Your task to perform on an android device: allow notifications from all sites in the chrome app Image 0: 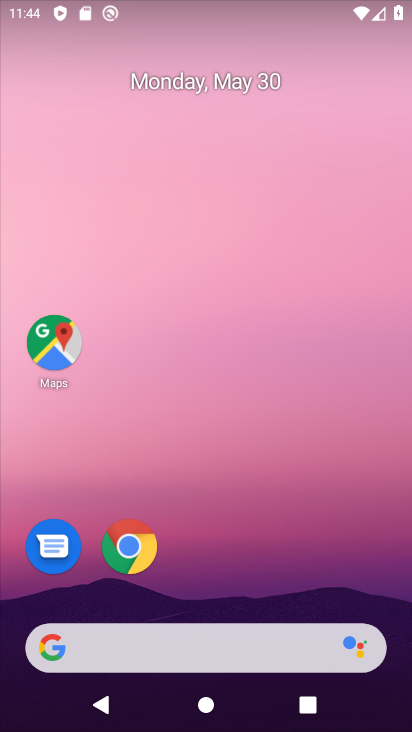
Step 0: click (232, 73)
Your task to perform on an android device: allow notifications from all sites in the chrome app Image 1: 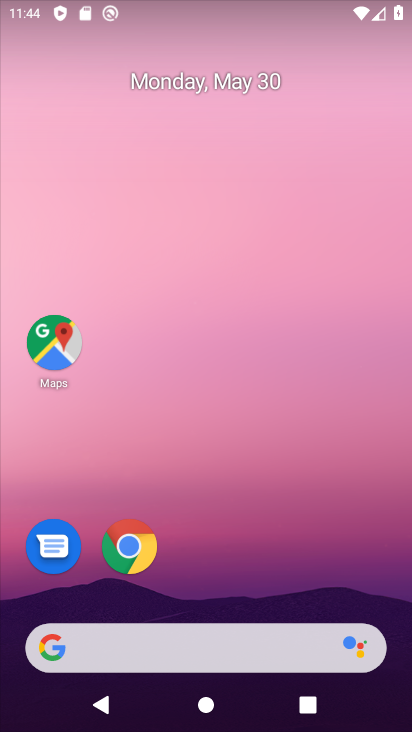
Step 1: click (116, 81)
Your task to perform on an android device: allow notifications from all sites in the chrome app Image 2: 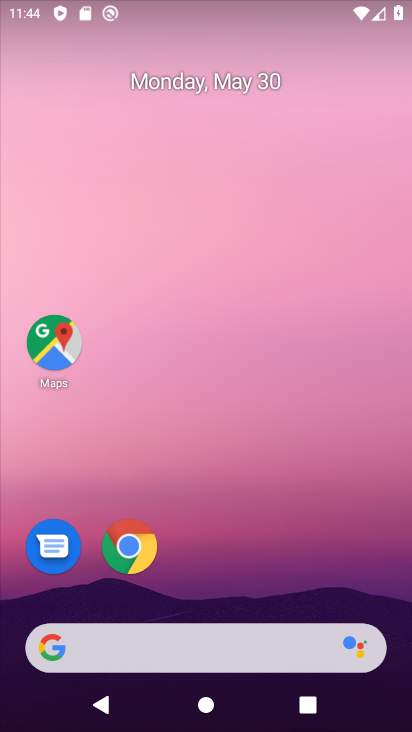
Step 2: click (120, 45)
Your task to perform on an android device: allow notifications from all sites in the chrome app Image 3: 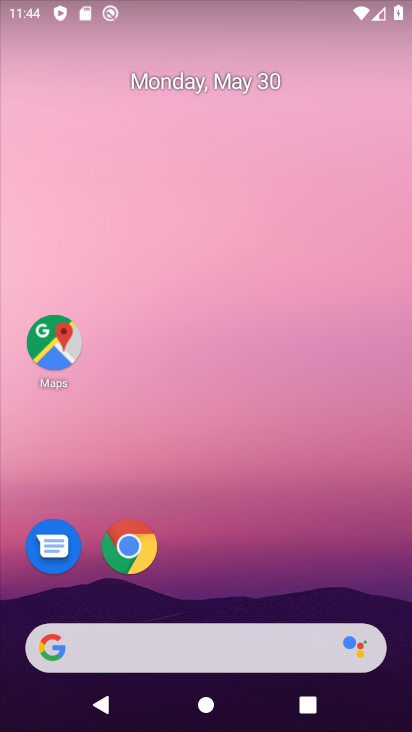
Step 3: drag from (228, 492) to (183, 19)
Your task to perform on an android device: allow notifications from all sites in the chrome app Image 4: 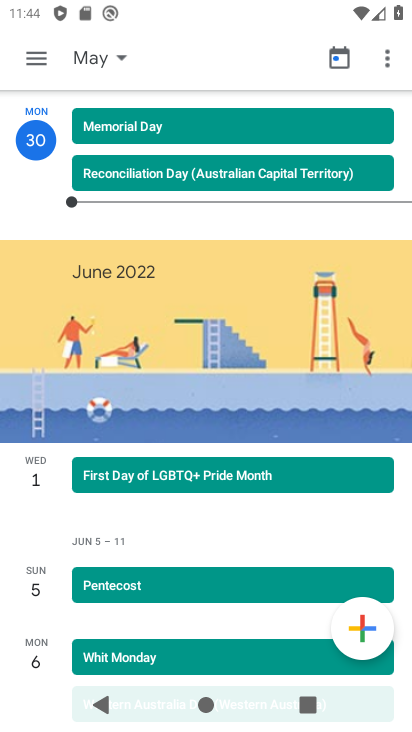
Step 4: click (215, 168)
Your task to perform on an android device: allow notifications from all sites in the chrome app Image 5: 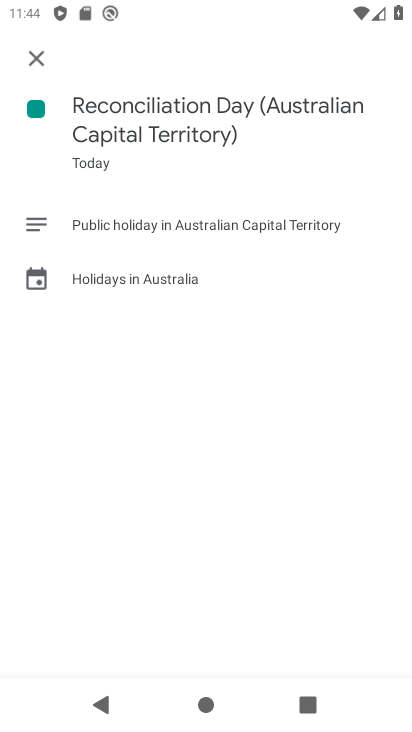
Step 5: click (32, 54)
Your task to perform on an android device: allow notifications from all sites in the chrome app Image 6: 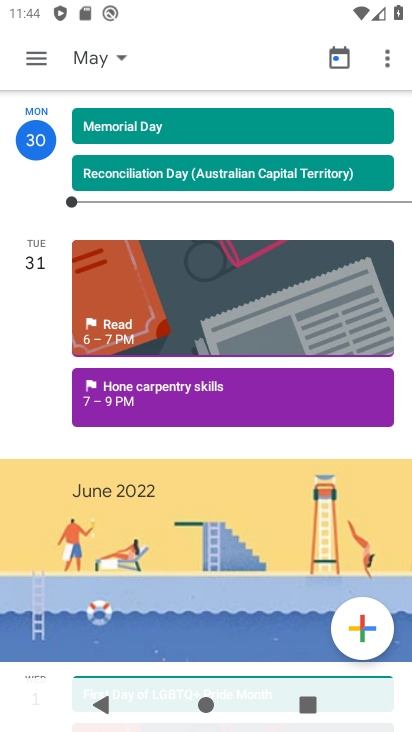
Step 6: press back button
Your task to perform on an android device: allow notifications from all sites in the chrome app Image 7: 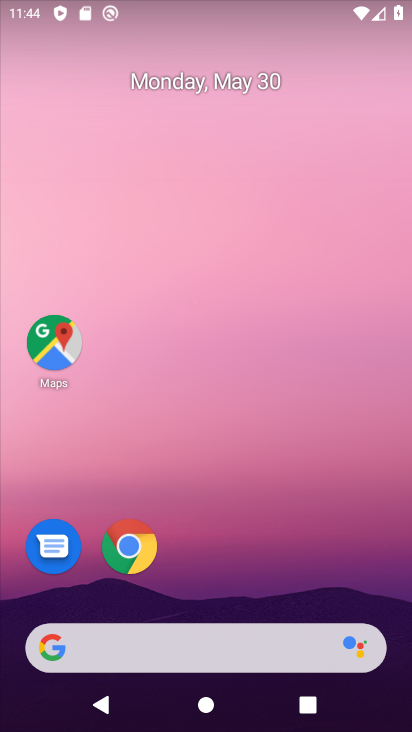
Step 7: drag from (253, 572) to (166, 52)
Your task to perform on an android device: allow notifications from all sites in the chrome app Image 8: 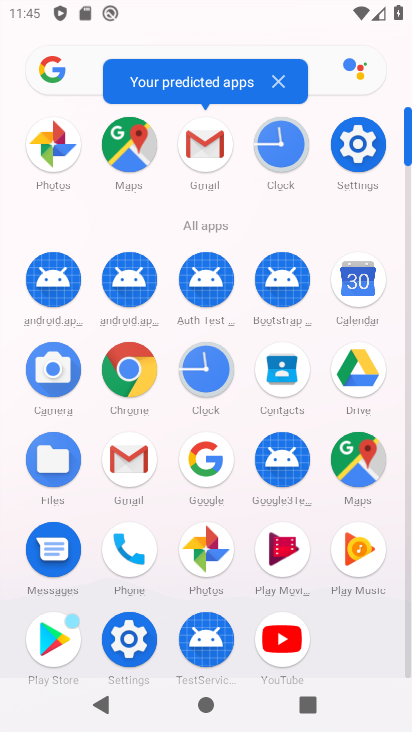
Step 8: click (173, 80)
Your task to perform on an android device: allow notifications from all sites in the chrome app Image 9: 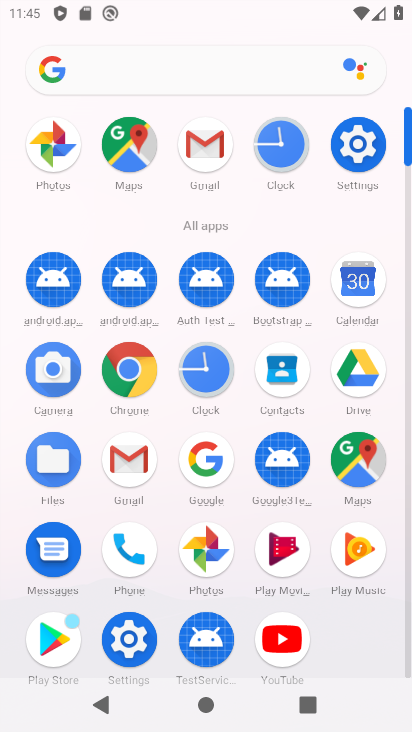
Step 9: click (129, 377)
Your task to perform on an android device: allow notifications from all sites in the chrome app Image 10: 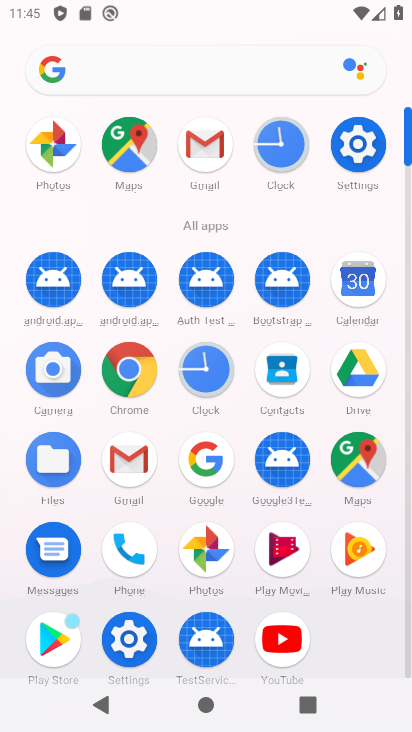
Step 10: click (130, 377)
Your task to perform on an android device: allow notifications from all sites in the chrome app Image 11: 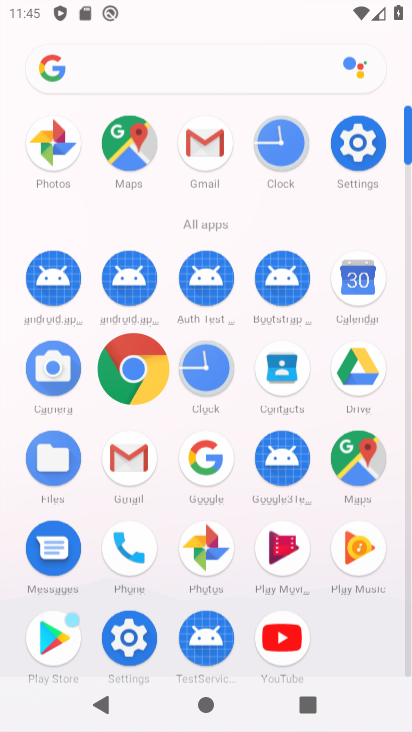
Step 11: click (125, 381)
Your task to perform on an android device: allow notifications from all sites in the chrome app Image 12: 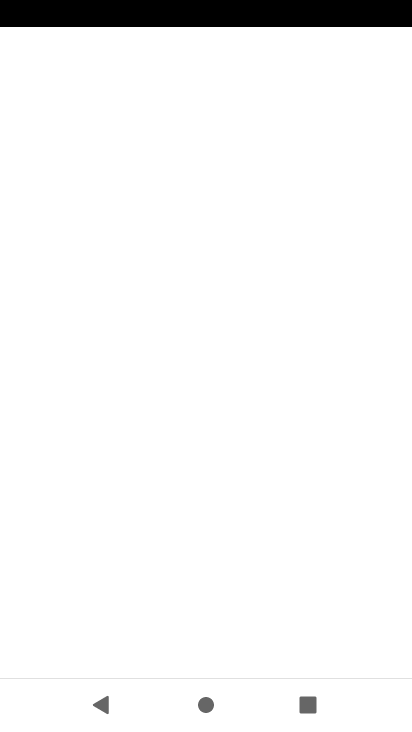
Step 12: click (121, 381)
Your task to perform on an android device: allow notifications from all sites in the chrome app Image 13: 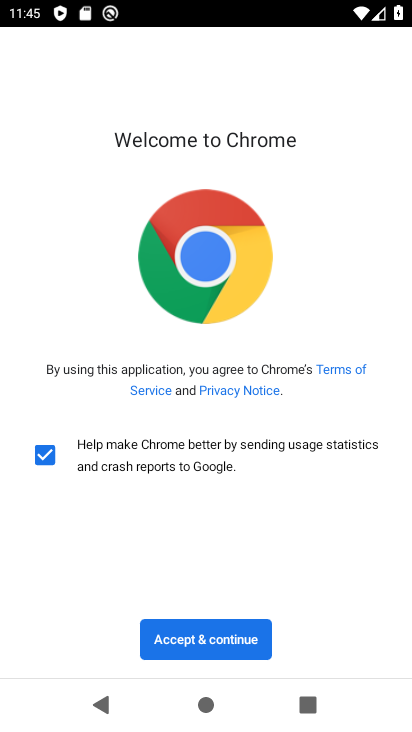
Step 13: click (224, 634)
Your task to perform on an android device: allow notifications from all sites in the chrome app Image 14: 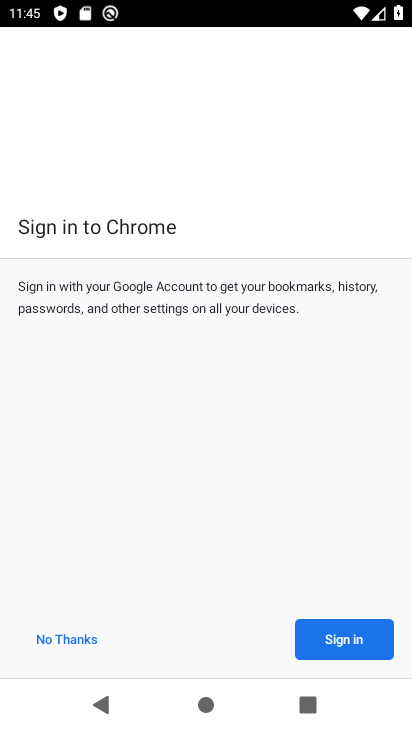
Step 14: click (230, 640)
Your task to perform on an android device: allow notifications from all sites in the chrome app Image 15: 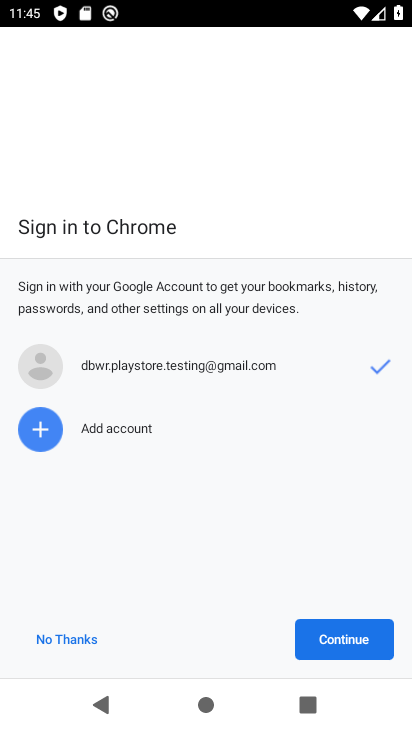
Step 15: click (231, 635)
Your task to perform on an android device: allow notifications from all sites in the chrome app Image 16: 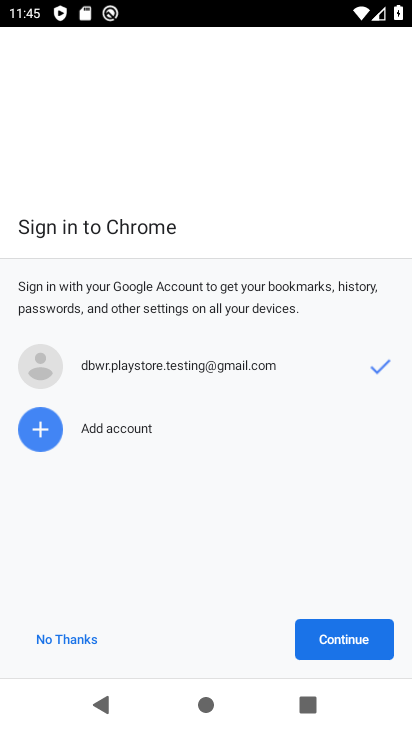
Step 16: click (376, 642)
Your task to perform on an android device: allow notifications from all sites in the chrome app Image 17: 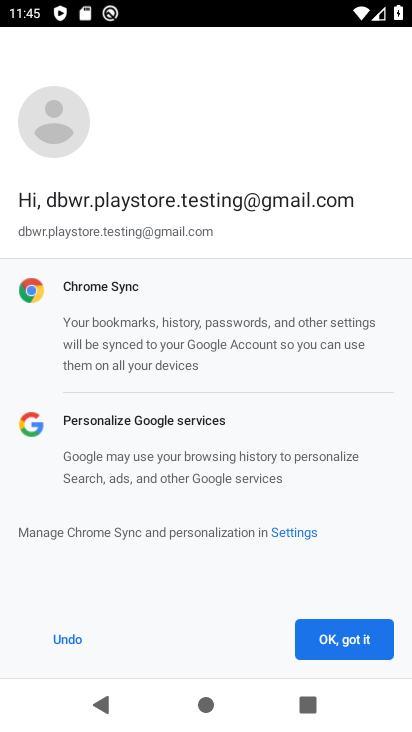
Step 17: click (376, 642)
Your task to perform on an android device: allow notifications from all sites in the chrome app Image 18: 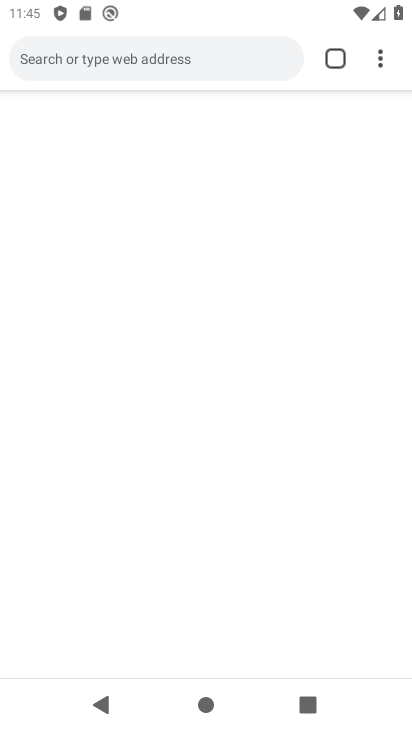
Step 18: click (343, 636)
Your task to perform on an android device: allow notifications from all sites in the chrome app Image 19: 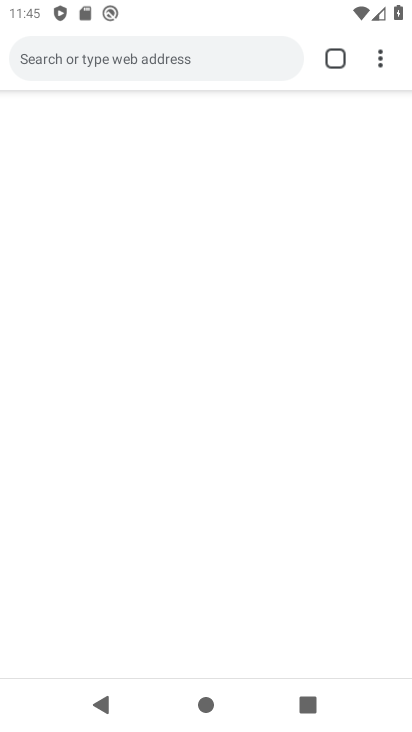
Step 19: click (161, 628)
Your task to perform on an android device: allow notifications from all sites in the chrome app Image 20: 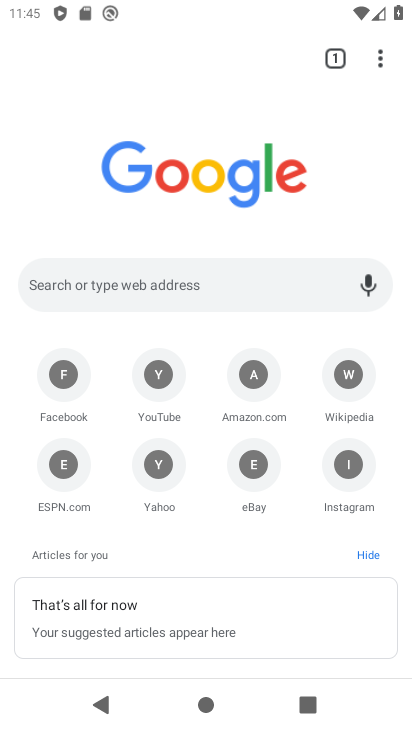
Step 20: click (150, 625)
Your task to perform on an android device: allow notifications from all sites in the chrome app Image 21: 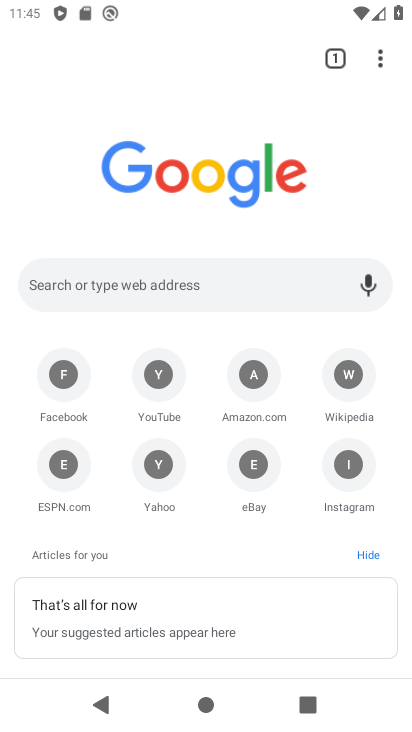
Step 21: click (150, 625)
Your task to perform on an android device: allow notifications from all sites in the chrome app Image 22: 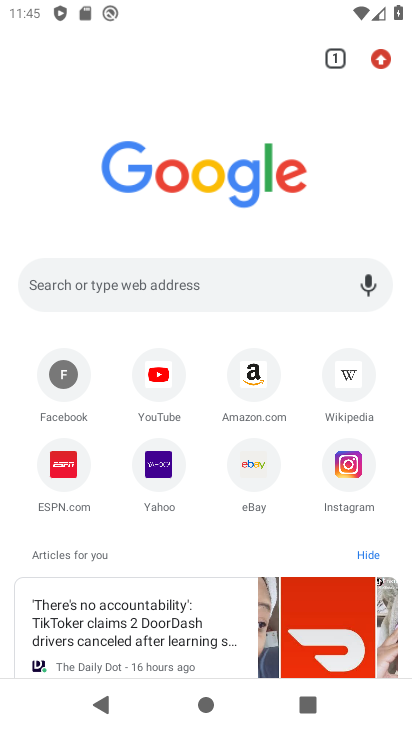
Step 22: click (381, 64)
Your task to perform on an android device: allow notifications from all sites in the chrome app Image 23: 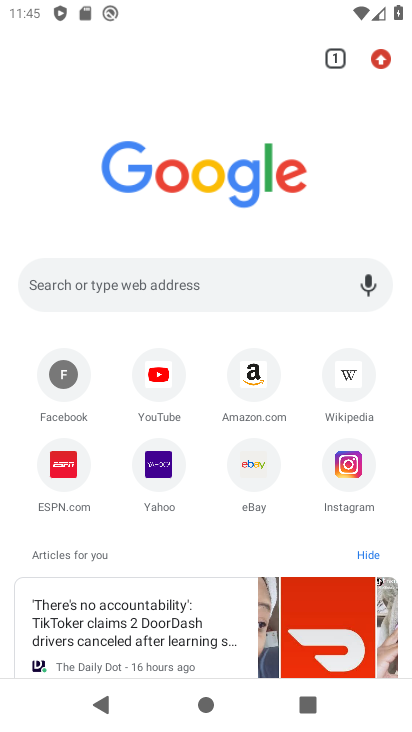
Step 23: drag from (381, 64) to (300, 279)
Your task to perform on an android device: allow notifications from all sites in the chrome app Image 24: 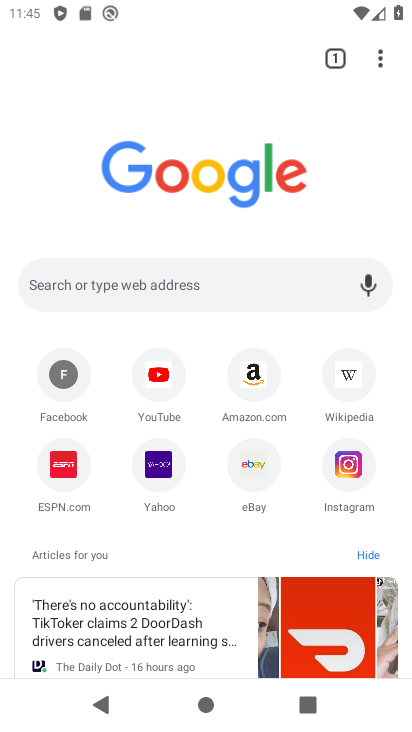
Step 24: drag from (382, 59) to (171, 543)
Your task to perform on an android device: allow notifications from all sites in the chrome app Image 25: 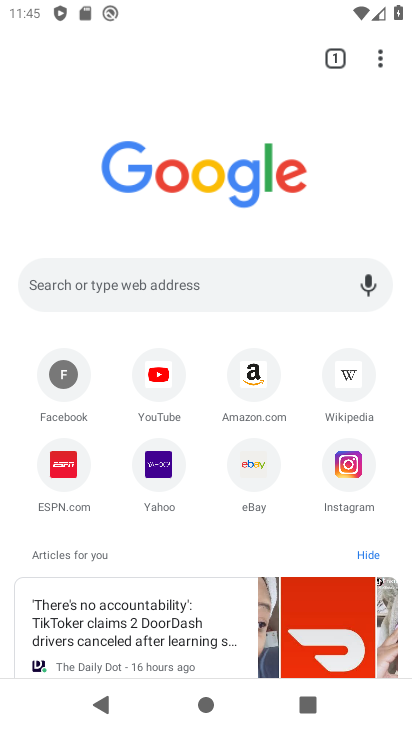
Step 25: click (180, 553)
Your task to perform on an android device: allow notifications from all sites in the chrome app Image 26: 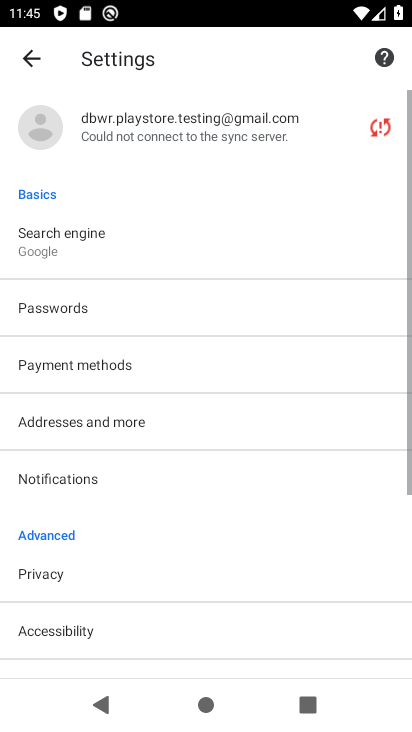
Step 26: drag from (132, 500) to (87, 58)
Your task to perform on an android device: allow notifications from all sites in the chrome app Image 27: 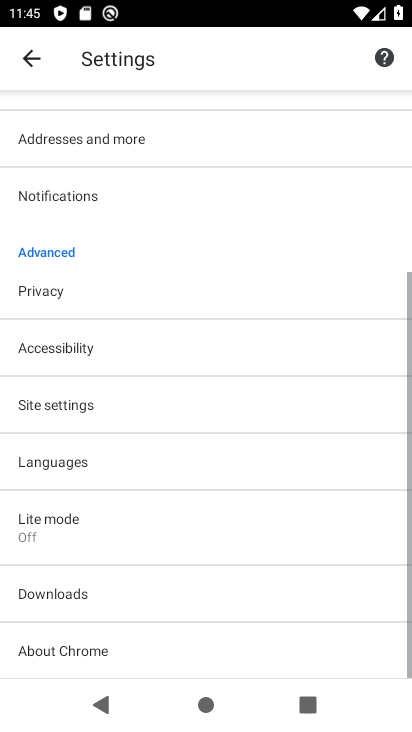
Step 27: drag from (126, 304) to (94, 147)
Your task to perform on an android device: allow notifications from all sites in the chrome app Image 28: 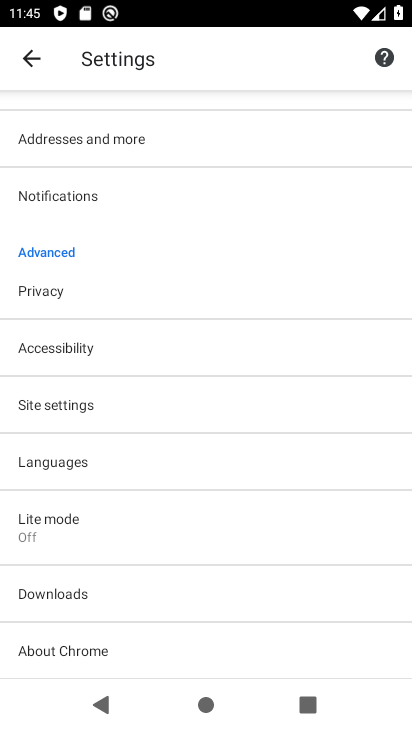
Step 28: click (42, 397)
Your task to perform on an android device: allow notifications from all sites in the chrome app Image 29: 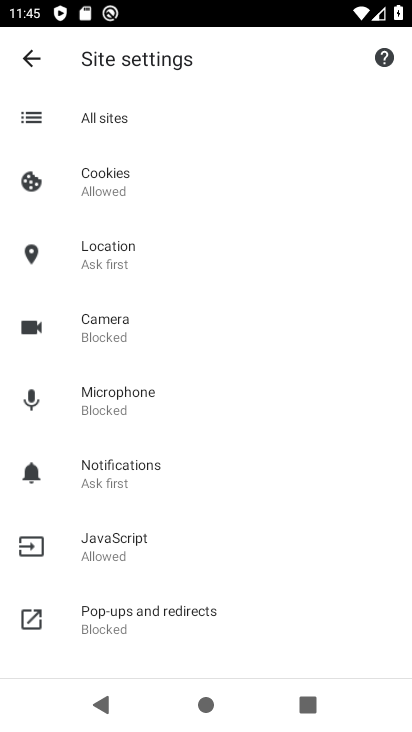
Step 29: click (102, 112)
Your task to perform on an android device: allow notifications from all sites in the chrome app Image 30: 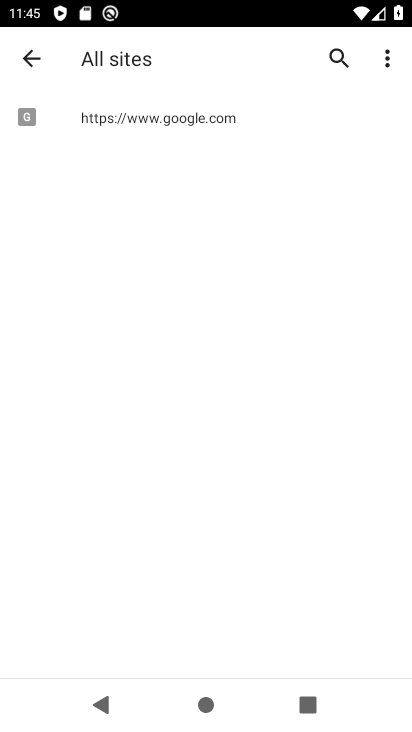
Step 30: click (123, 117)
Your task to perform on an android device: allow notifications from all sites in the chrome app Image 31: 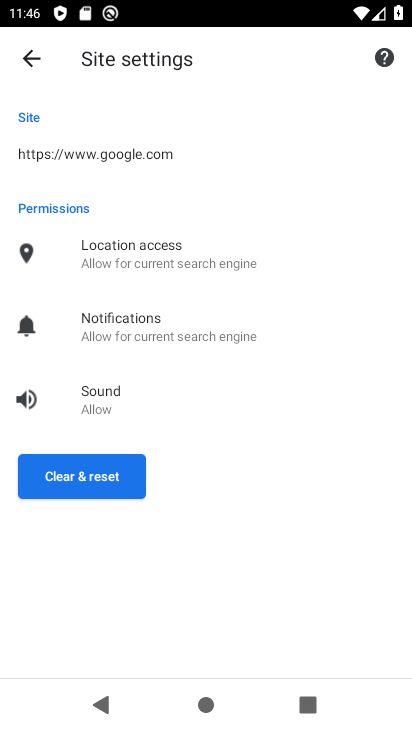
Step 31: click (89, 324)
Your task to perform on an android device: allow notifications from all sites in the chrome app Image 32: 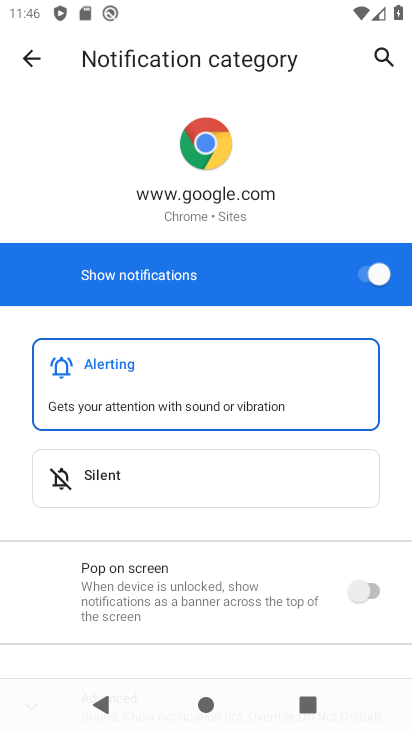
Step 32: task complete